Your task to perform on an android device: all mails in gmail Image 0: 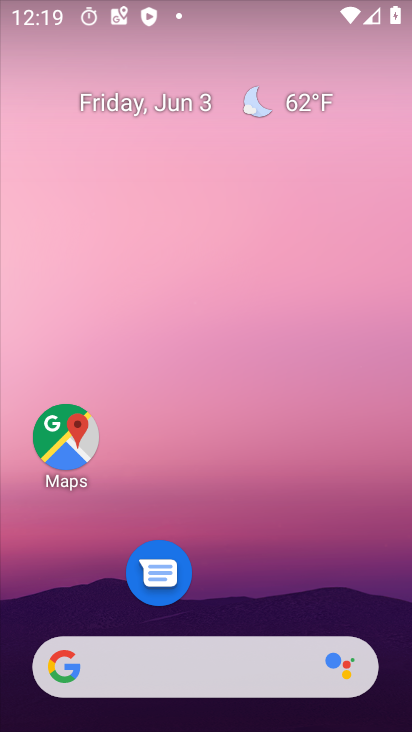
Step 0: drag from (303, 544) to (290, 154)
Your task to perform on an android device: all mails in gmail Image 1: 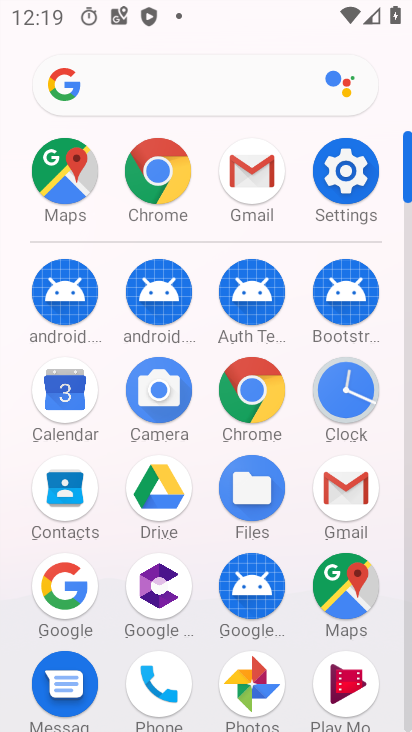
Step 1: click (336, 490)
Your task to perform on an android device: all mails in gmail Image 2: 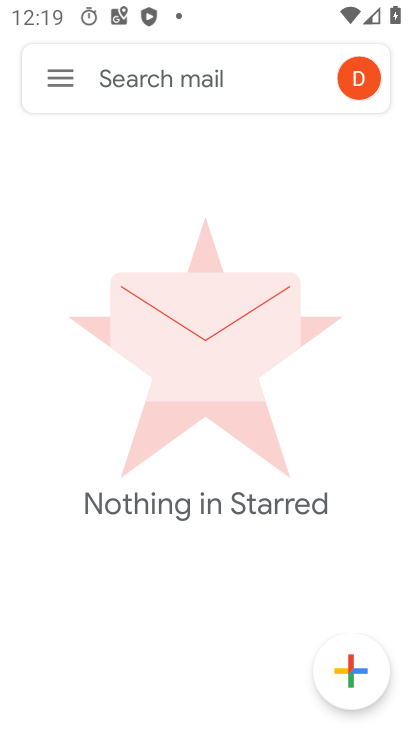
Step 2: click (52, 70)
Your task to perform on an android device: all mails in gmail Image 3: 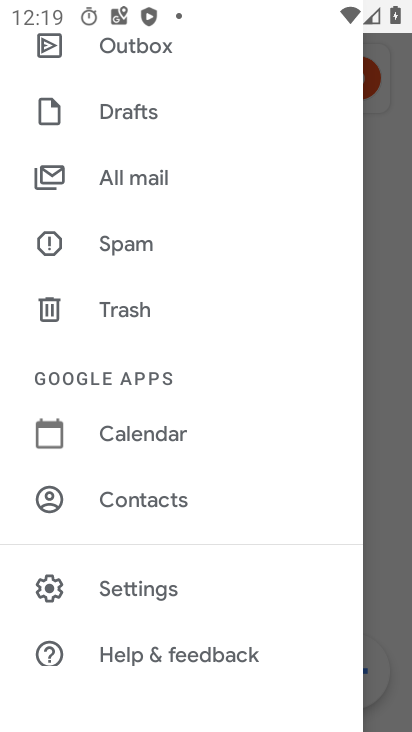
Step 3: click (140, 165)
Your task to perform on an android device: all mails in gmail Image 4: 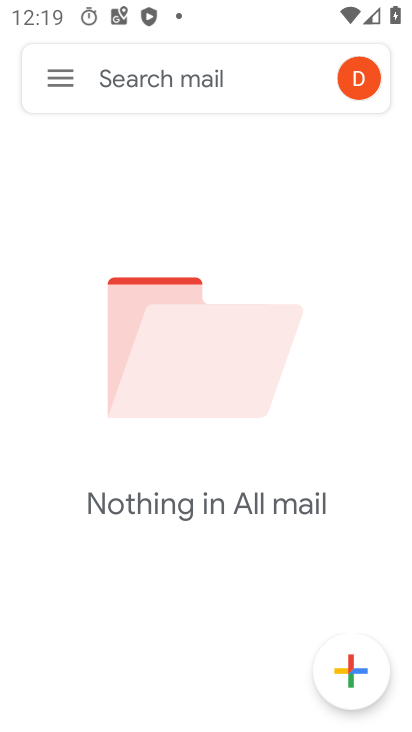
Step 4: task complete